Your task to perform on an android device: Open Android settings Image 0: 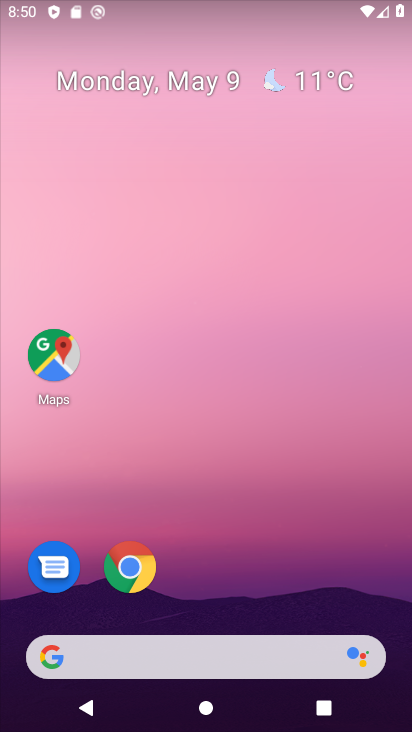
Step 0: drag from (164, 630) to (299, 80)
Your task to perform on an android device: Open Android settings Image 1: 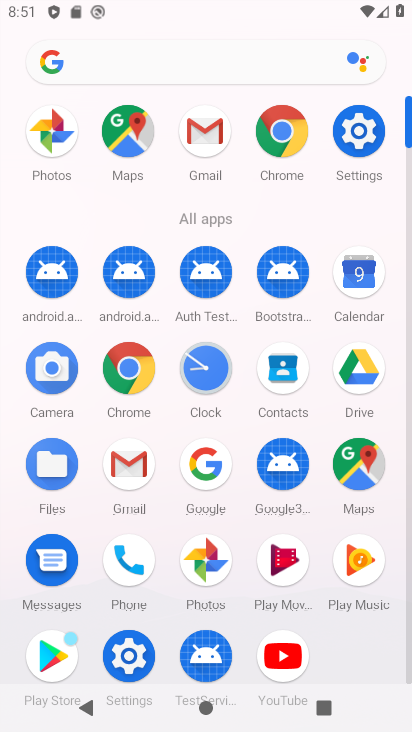
Step 1: click (133, 668)
Your task to perform on an android device: Open Android settings Image 2: 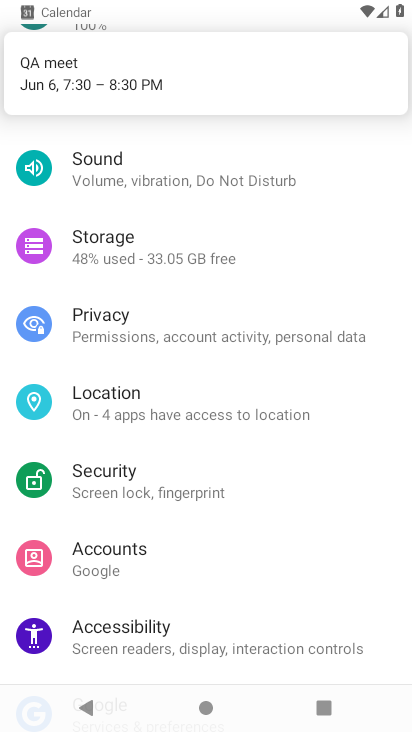
Step 2: task complete